Your task to perform on an android device: Is it going to rain this weekend? Image 0: 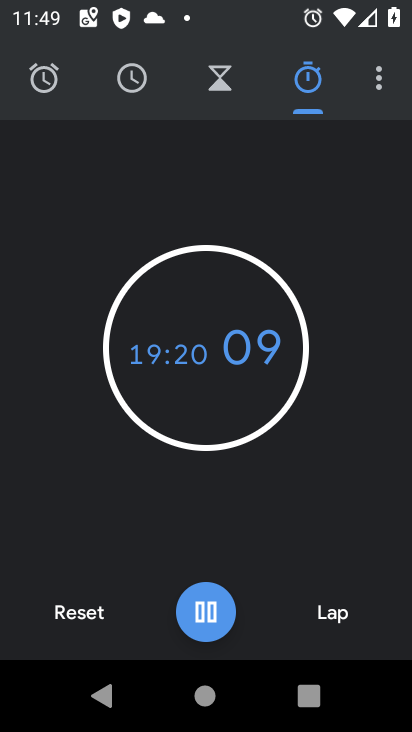
Step 0: press home button
Your task to perform on an android device: Is it going to rain this weekend? Image 1: 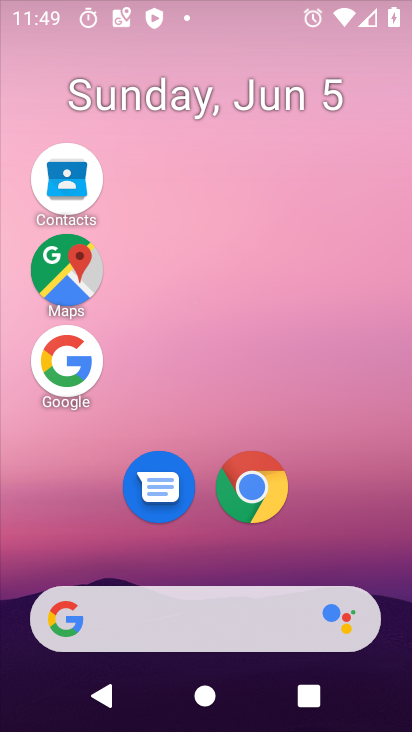
Step 1: drag from (183, 657) to (195, 210)
Your task to perform on an android device: Is it going to rain this weekend? Image 2: 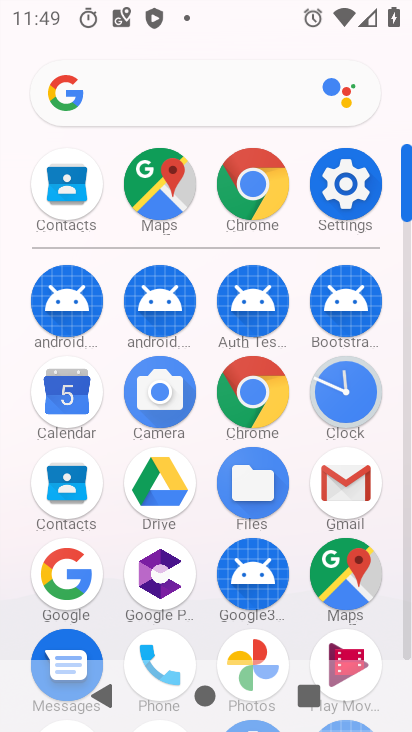
Step 2: click (62, 568)
Your task to perform on an android device: Is it going to rain this weekend? Image 3: 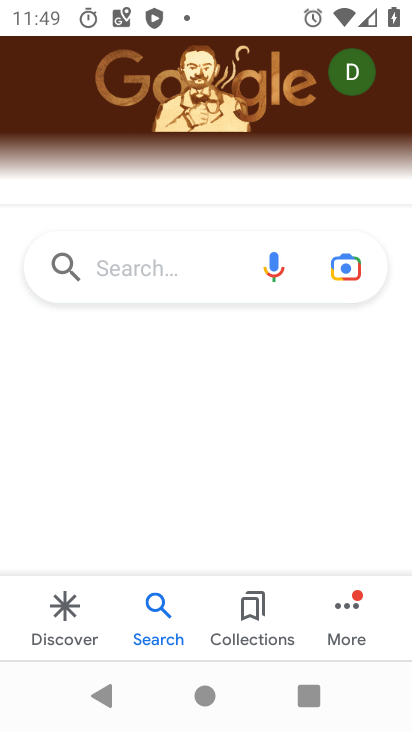
Step 3: click (178, 267)
Your task to perform on an android device: Is it going to rain this weekend? Image 4: 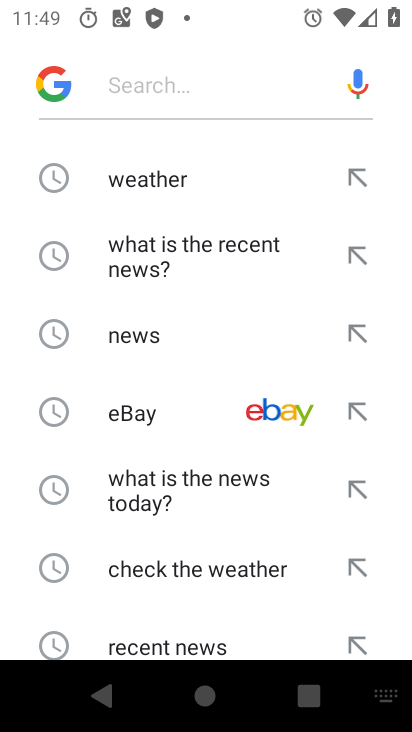
Step 4: click (205, 184)
Your task to perform on an android device: Is it going to rain this weekend? Image 5: 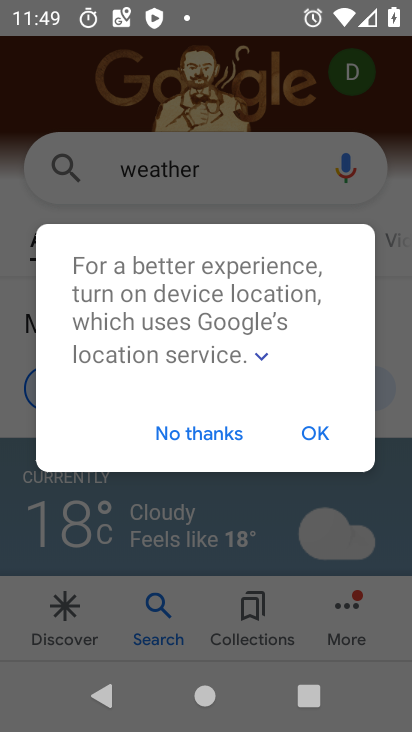
Step 5: click (309, 428)
Your task to perform on an android device: Is it going to rain this weekend? Image 6: 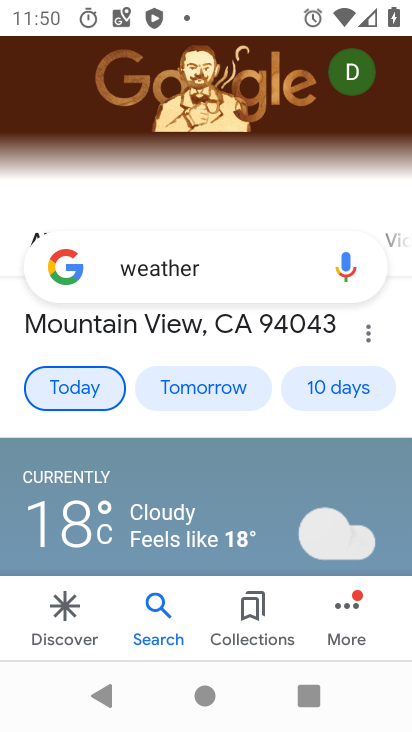
Step 6: click (333, 385)
Your task to perform on an android device: Is it going to rain this weekend? Image 7: 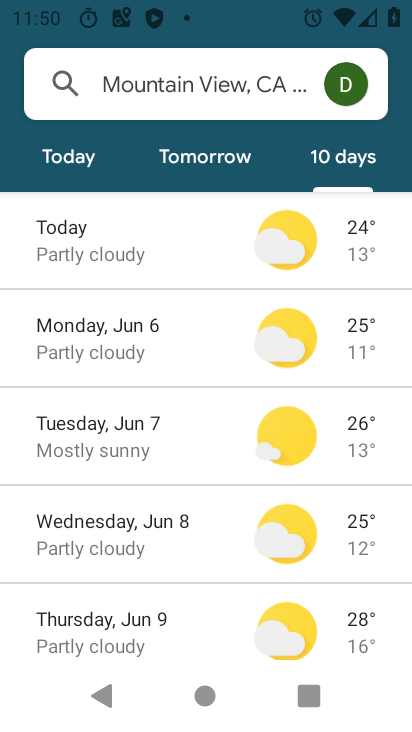
Step 7: task complete